Your task to perform on an android device: Is it going to rain this weekend? Image 0: 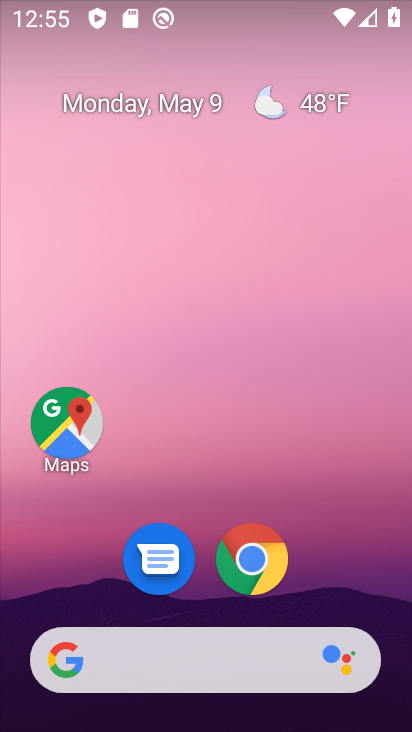
Step 0: drag from (196, 562) to (207, 182)
Your task to perform on an android device: Is it going to rain this weekend? Image 1: 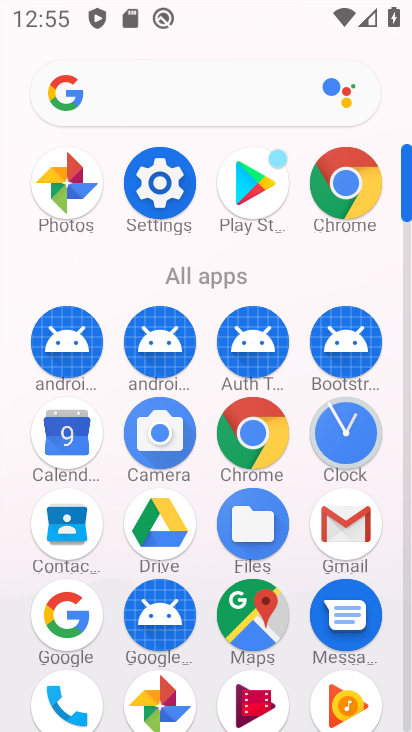
Step 1: drag from (212, 640) to (189, 213)
Your task to perform on an android device: Is it going to rain this weekend? Image 2: 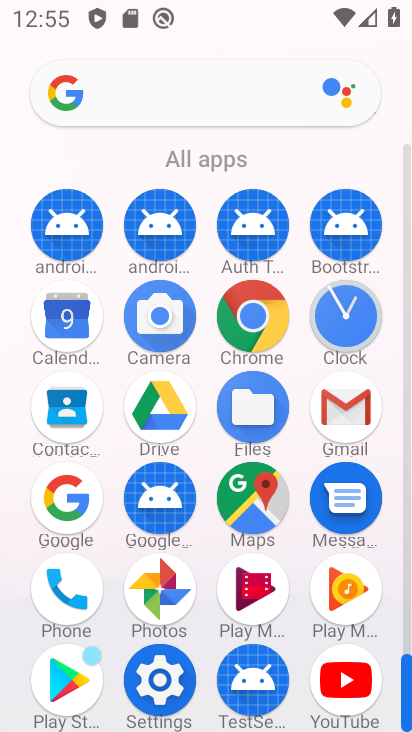
Step 2: click (179, 79)
Your task to perform on an android device: Is it going to rain this weekend? Image 3: 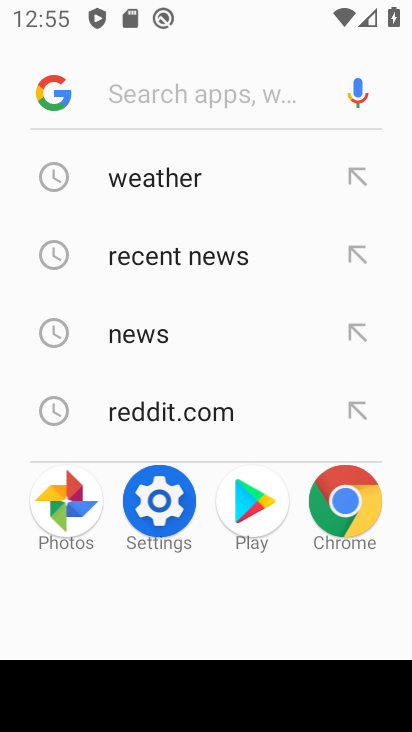
Step 3: click (199, 82)
Your task to perform on an android device: Is it going to rain this weekend? Image 4: 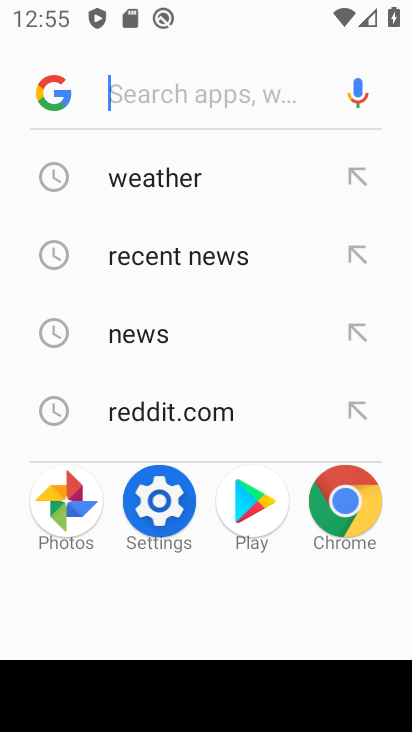
Step 4: type "rain weekend"
Your task to perform on an android device: Is it going to rain this weekend? Image 5: 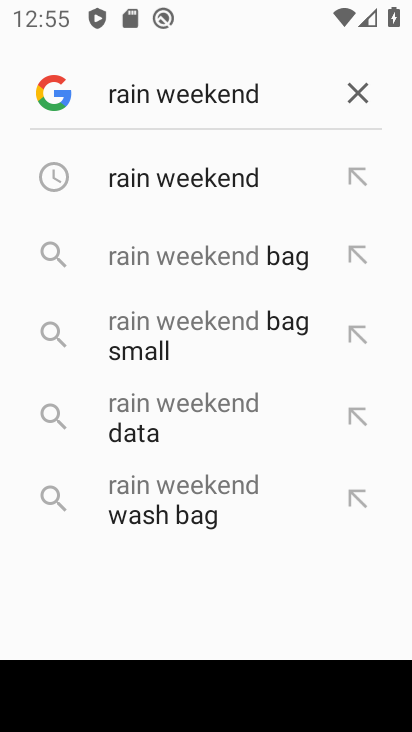
Step 5: click (166, 183)
Your task to perform on an android device: Is it going to rain this weekend? Image 6: 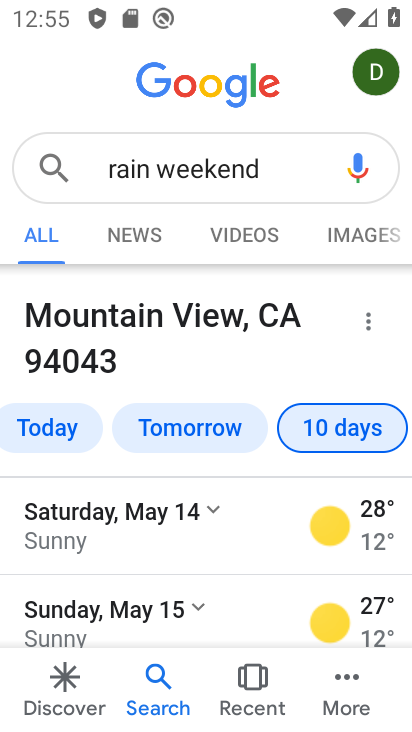
Step 6: task complete